Your task to perform on an android device: Do I have any events this weekend? Image 0: 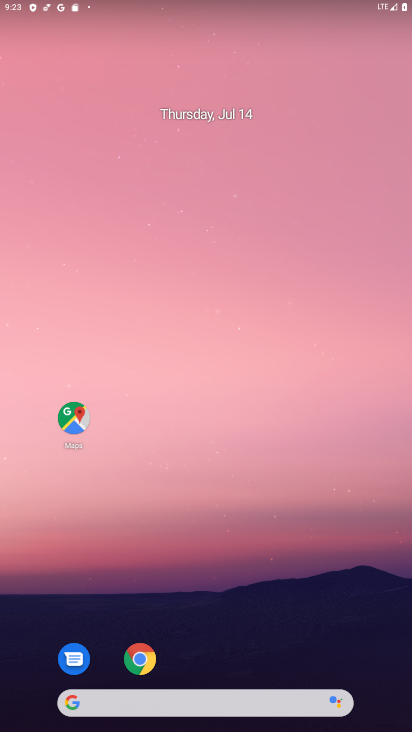
Step 0: press home button
Your task to perform on an android device: Do I have any events this weekend? Image 1: 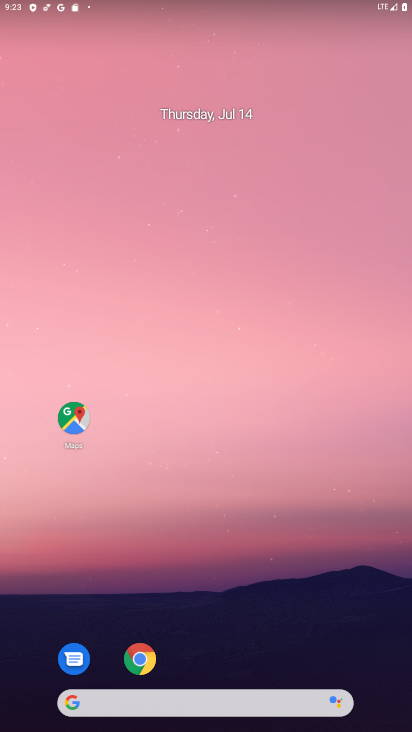
Step 1: drag from (303, 609) to (258, 150)
Your task to perform on an android device: Do I have any events this weekend? Image 2: 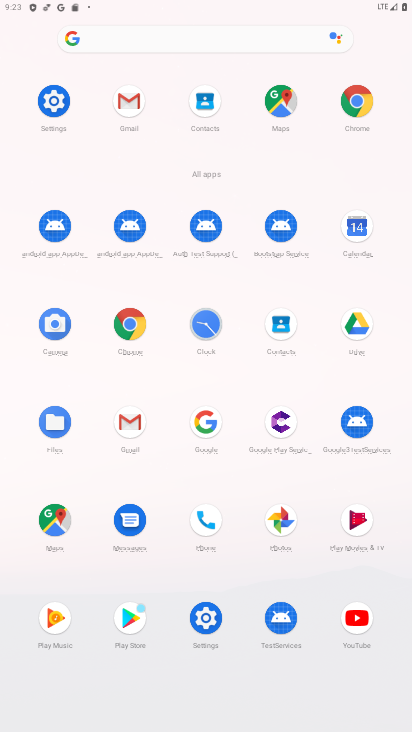
Step 2: click (362, 236)
Your task to perform on an android device: Do I have any events this weekend? Image 3: 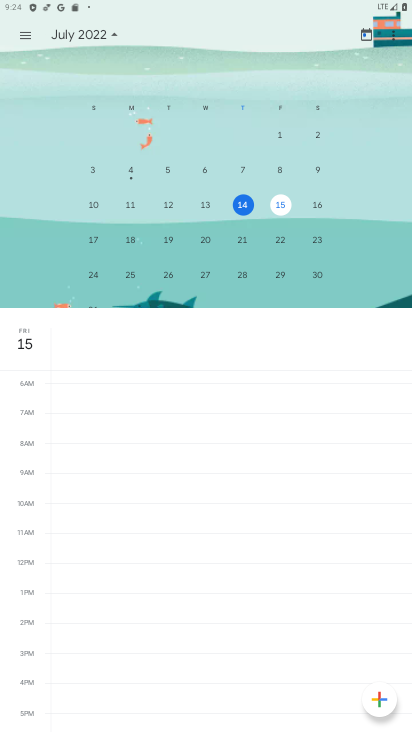
Step 3: click (17, 28)
Your task to perform on an android device: Do I have any events this weekend? Image 4: 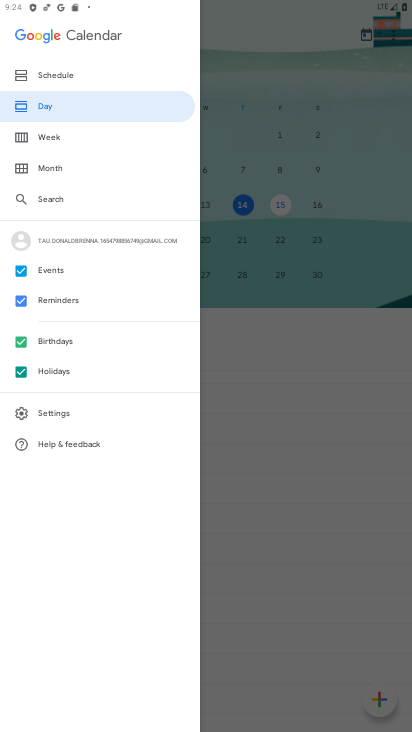
Step 4: click (71, 136)
Your task to perform on an android device: Do I have any events this weekend? Image 5: 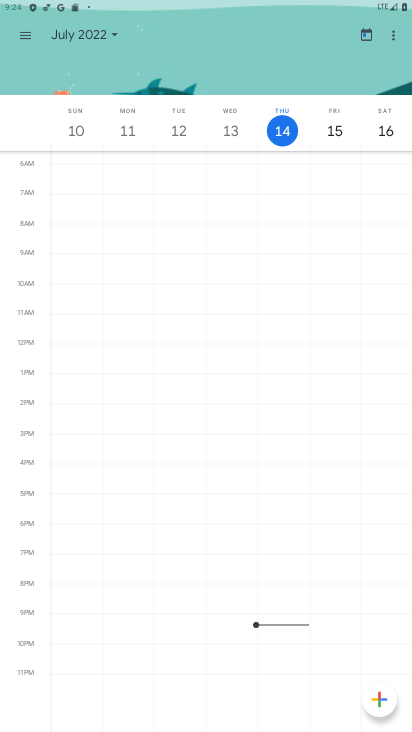
Step 5: task complete